Your task to perform on an android device: Clear the cart on walmart.com. Add rayovac triple a to the cart on walmart.com, then select checkout. Image 0: 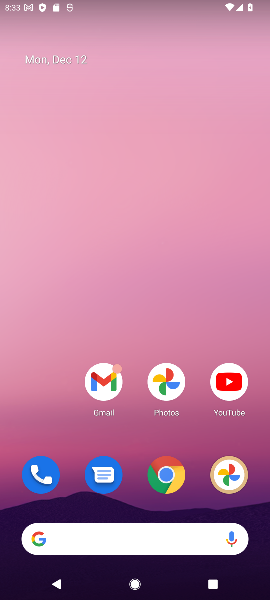
Step 0: click (168, 474)
Your task to perform on an android device: Clear the cart on walmart.com. Add rayovac triple a to the cart on walmart.com, then select checkout. Image 1: 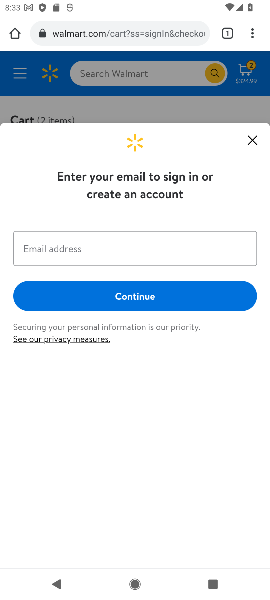
Step 1: click (129, 31)
Your task to perform on an android device: Clear the cart on walmart.com. Add rayovac triple a to the cart on walmart.com, then select checkout. Image 2: 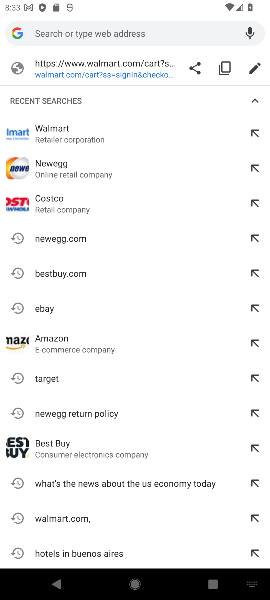
Step 2: type "walmart.com"
Your task to perform on an android device: Clear the cart on walmart.com. Add rayovac triple a to the cart on walmart.com, then select checkout. Image 3: 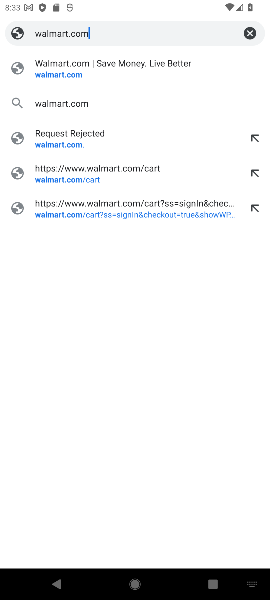
Step 3: click (70, 103)
Your task to perform on an android device: Clear the cart on walmart.com. Add rayovac triple a to the cart on walmart.com, then select checkout. Image 4: 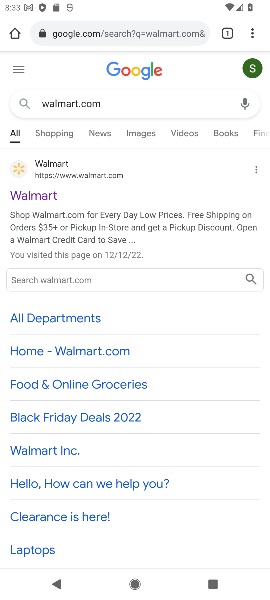
Step 4: click (45, 195)
Your task to perform on an android device: Clear the cart on walmart.com. Add rayovac triple a to the cart on walmart.com, then select checkout. Image 5: 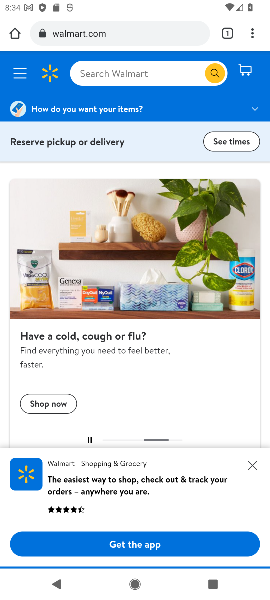
Step 5: click (246, 74)
Your task to perform on an android device: Clear the cart on walmart.com. Add rayovac triple a to the cart on walmart.com, then select checkout. Image 6: 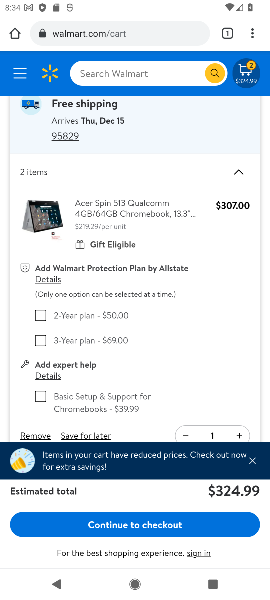
Step 6: click (40, 436)
Your task to perform on an android device: Clear the cart on walmart.com. Add rayovac triple a to the cart on walmart.com, then select checkout. Image 7: 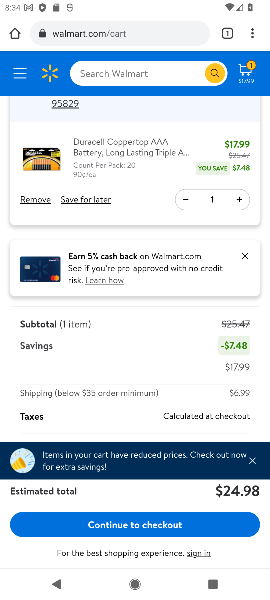
Step 7: click (43, 197)
Your task to perform on an android device: Clear the cart on walmart.com. Add rayovac triple a to the cart on walmart.com, then select checkout. Image 8: 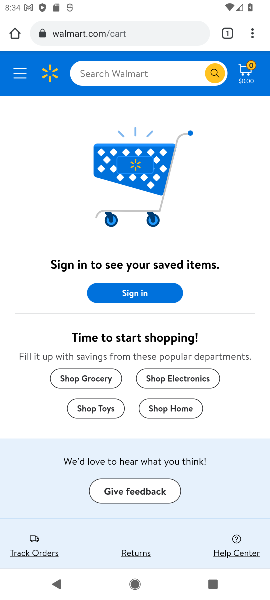
Step 8: click (156, 77)
Your task to perform on an android device: Clear the cart on walmart.com. Add rayovac triple a to the cart on walmart.com, then select checkout. Image 9: 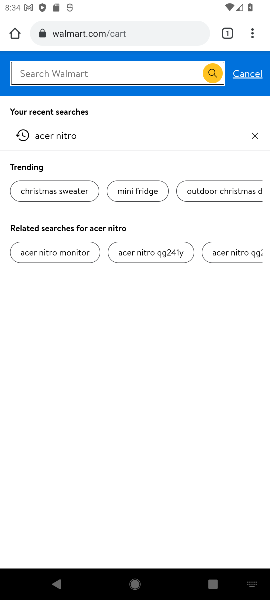
Step 9: type "rayovac triple a"
Your task to perform on an android device: Clear the cart on walmart.com. Add rayovac triple a to the cart on walmart.com, then select checkout. Image 10: 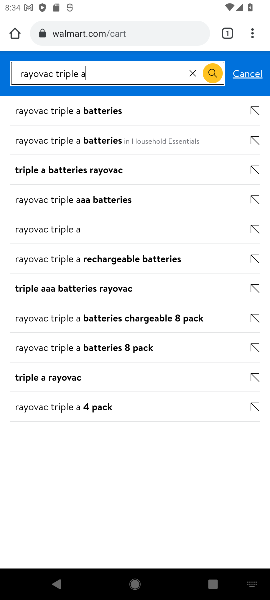
Step 10: click (210, 72)
Your task to perform on an android device: Clear the cart on walmart.com. Add rayovac triple a to the cart on walmart.com, then select checkout. Image 11: 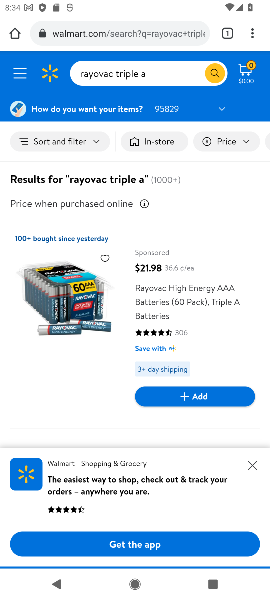
Step 11: click (191, 296)
Your task to perform on an android device: Clear the cart on walmart.com. Add rayovac triple a to the cart on walmart.com, then select checkout. Image 12: 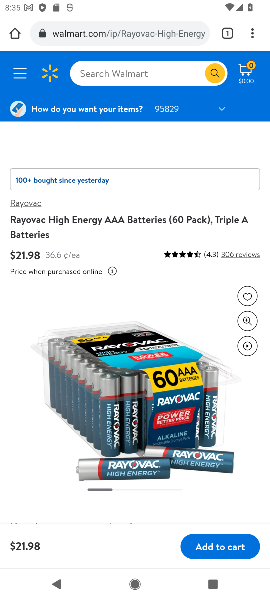
Step 12: click (220, 541)
Your task to perform on an android device: Clear the cart on walmart.com. Add rayovac triple a to the cart on walmart.com, then select checkout. Image 13: 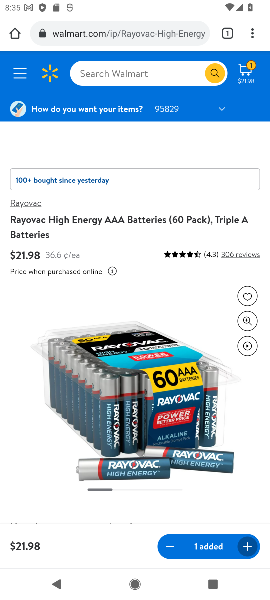
Step 13: click (246, 67)
Your task to perform on an android device: Clear the cart on walmart.com. Add rayovac triple a to the cart on walmart.com, then select checkout. Image 14: 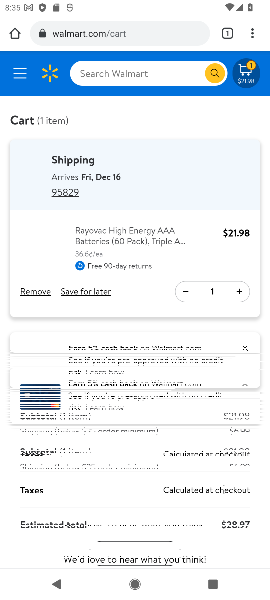
Step 14: click (217, 115)
Your task to perform on an android device: Clear the cart on walmart.com. Add rayovac triple a to the cart on walmart.com, then select checkout. Image 15: 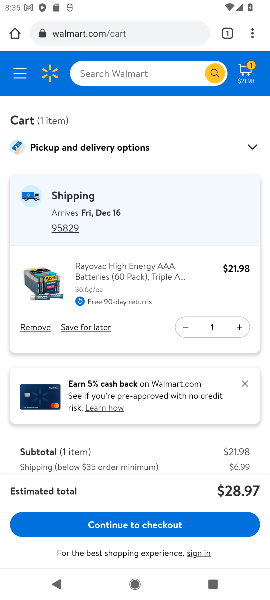
Step 15: click (155, 527)
Your task to perform on an android device: Clear the cart on walmart.com. Add rayovac triple a to the cart on walmart.com, then select checkout. Image 16: 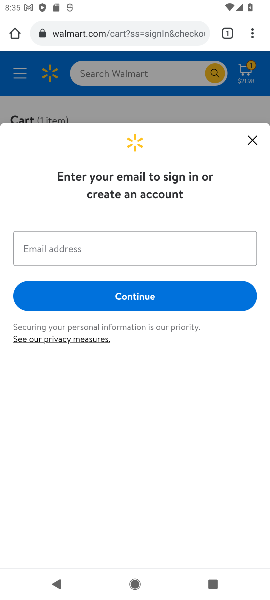
Step 16: task complete